Your task to perform on an android device: change the clock style Image 0: 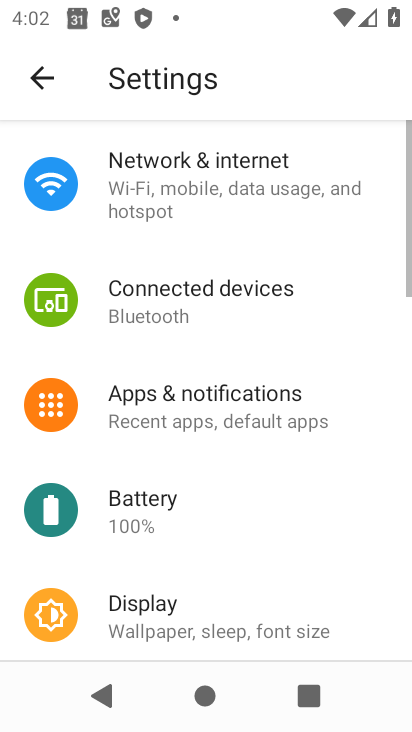
Step 0: press back button
Your task to perform on an android device: change the clock style Image 1: 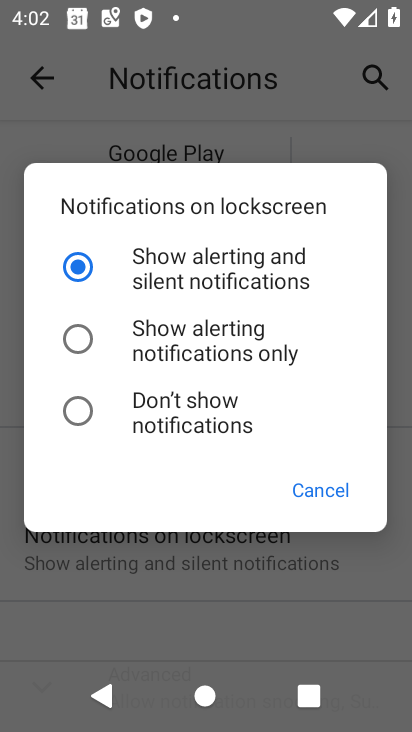
Step 1: press home button
Your task to perform on an android device: change the clock style Image 2: 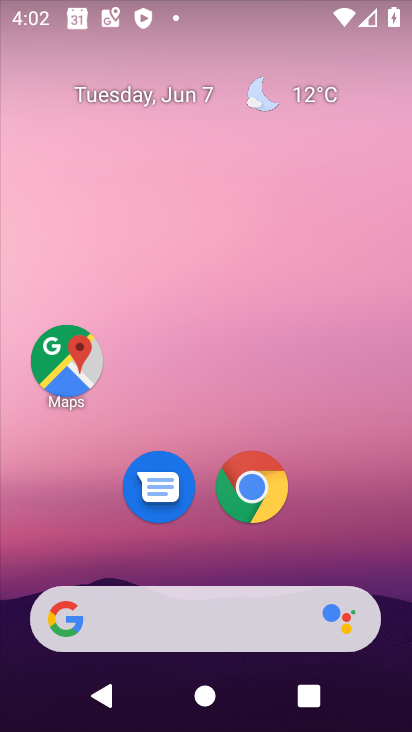
Step 2: drag from (212, 494) to (301, 20)
Your task to perform on an android device: change the clock style Image 3: 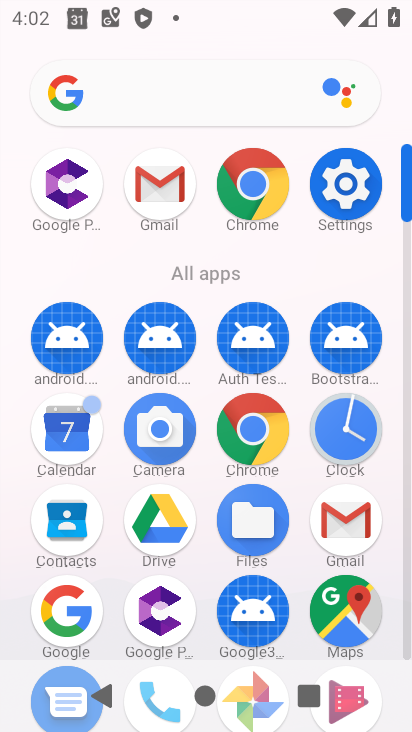
Step 3: click (339, 436)
Your task to perform on an android device: change the clock style Image 4: 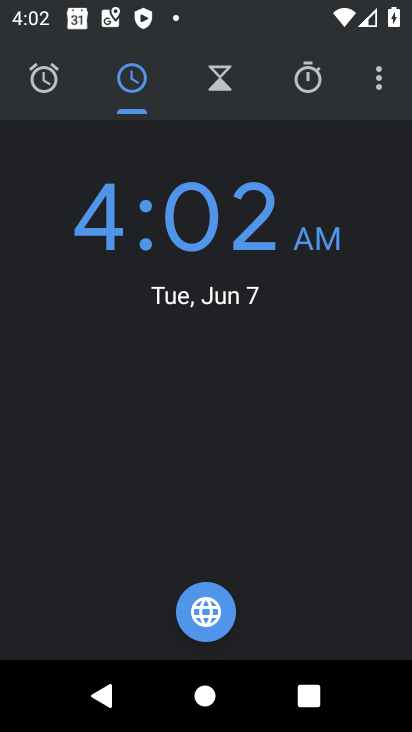
Step 4: click (373, 67)
Your task to perform on an android device: change the clock style Image 5: 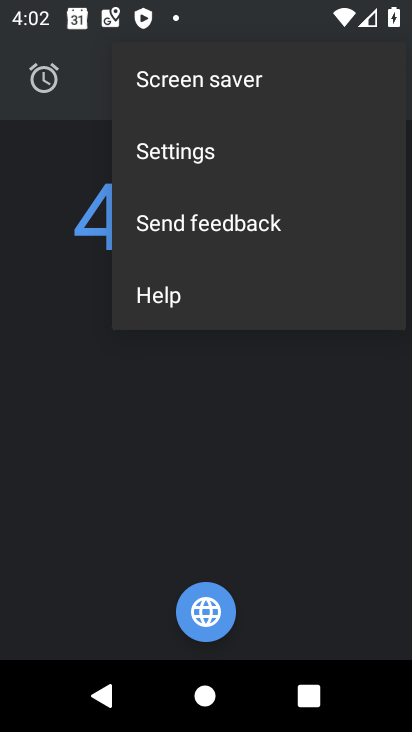
Step 5: click (196, 156)
Your task to perform on an android device: change the clock style Image 6: 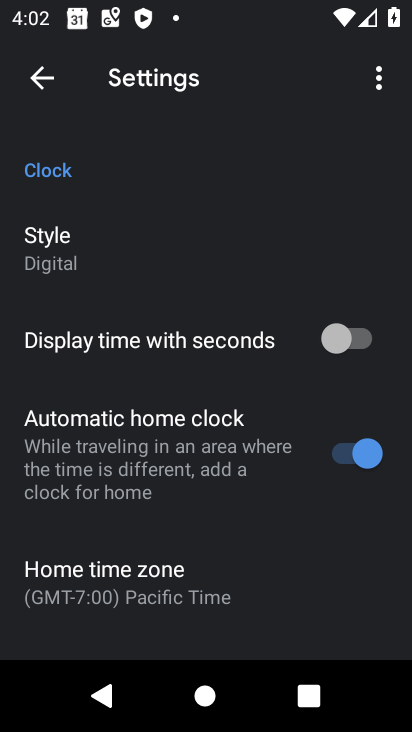
Step 6: click (81, 253)
Your task to perform on an android device: change the clock style Image 7: 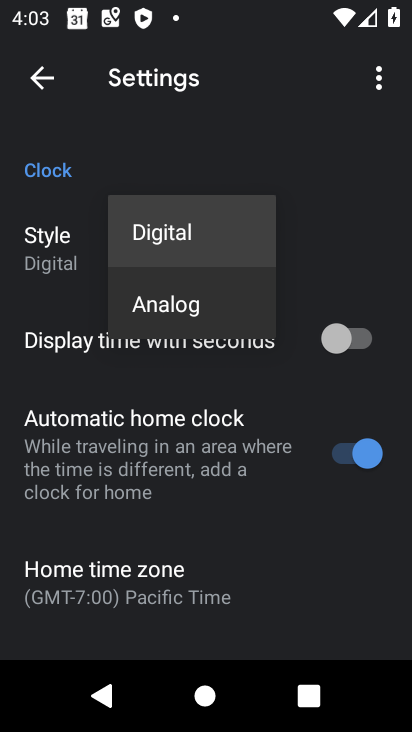
Step 7: click (168, 306)
Your task to perform on an android device: change the clock style Image 8: 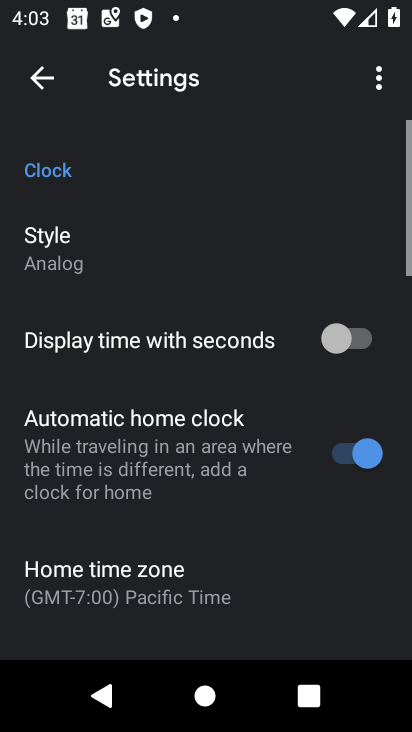
Step 8: task complete